Your task to perform on an android device: empty trash in the gmail app Image 0: 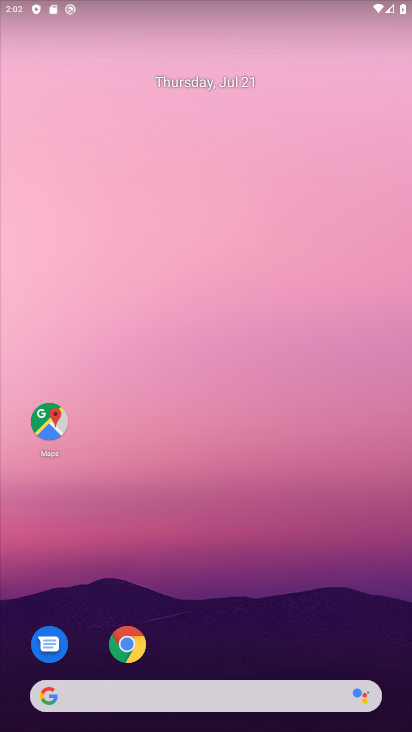
Step 0: drag from (310, 633) to (193, 200)
Your task to perform on an android device: empty trash in the gmail app Image 1: 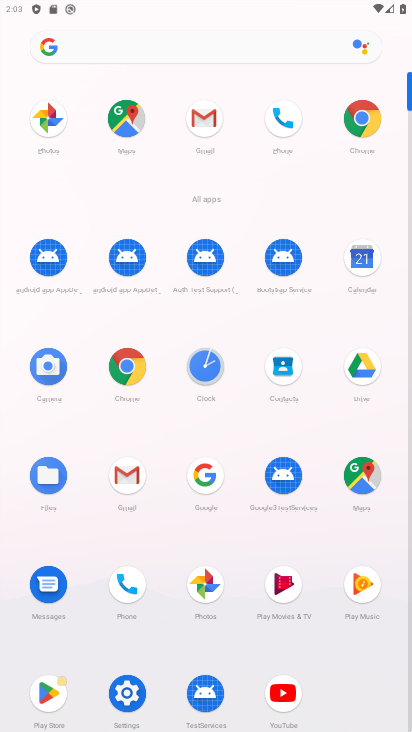
Step 1: click (208, 121)
Your task to perform on an android device: empty trash in the gmail app Image 2: 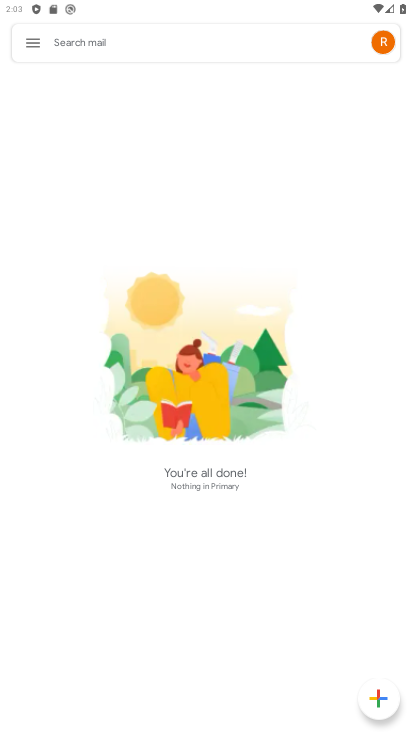
Step 2: click (26, 39)
Your task to perform on an android device: empty trash in the gmail app Image 3: 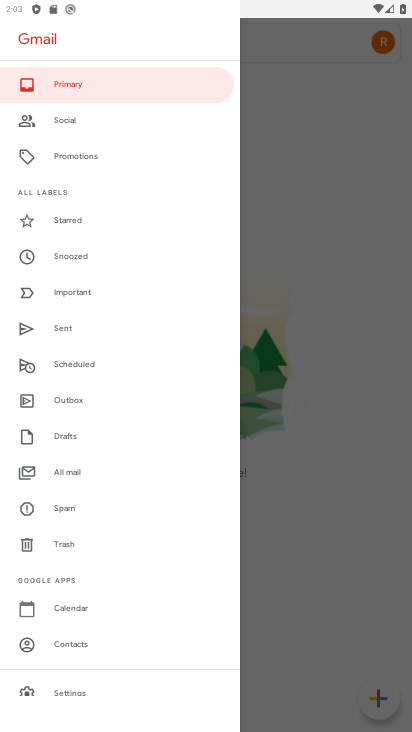
Step 3: click (78, 548)
Your task to perform on an android device: empty trash in the gmail app Image 4: 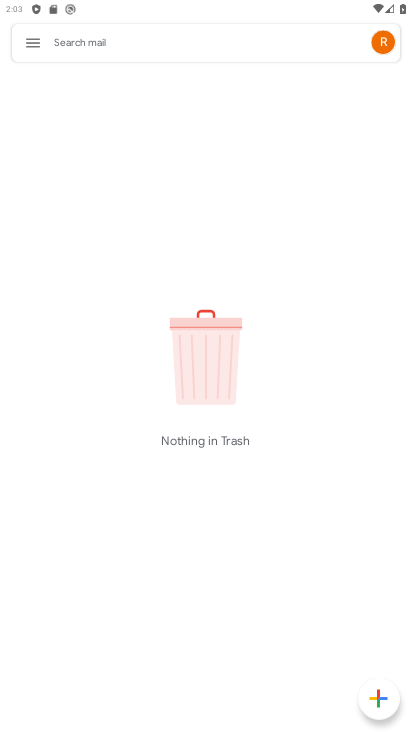
Step 4: task complete